Your task to perform on an android device: turn off priority inbox in the gmail app Image 0: 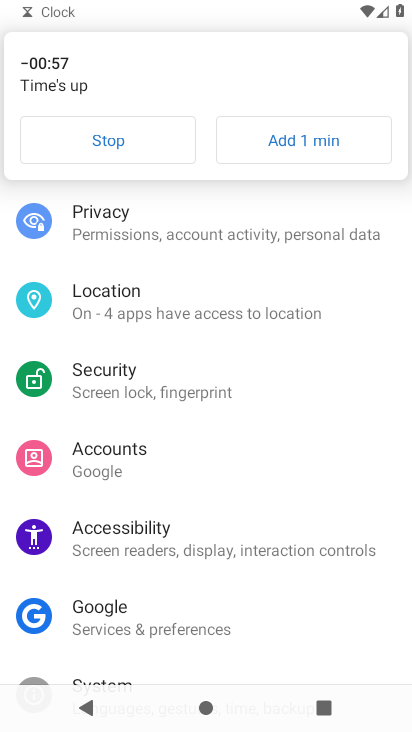
Step 0: press home button
Your task to perform on an android device: turn off priority inbox in the gmail app Image 1: 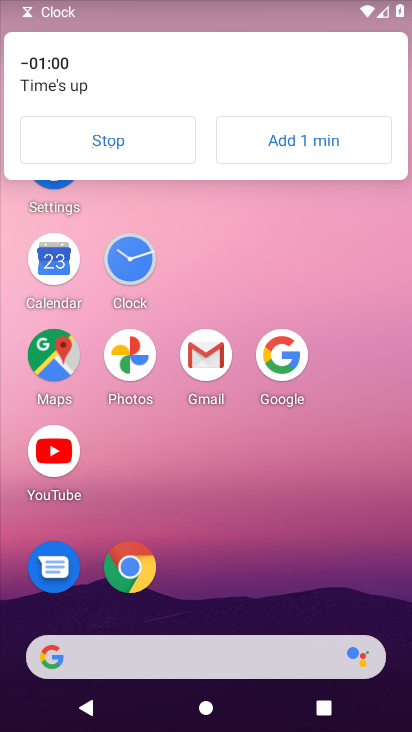
Step 1: click (87, 141)
Your task to perform on an android device: turn off priority inbox in the gmail app Image 2: 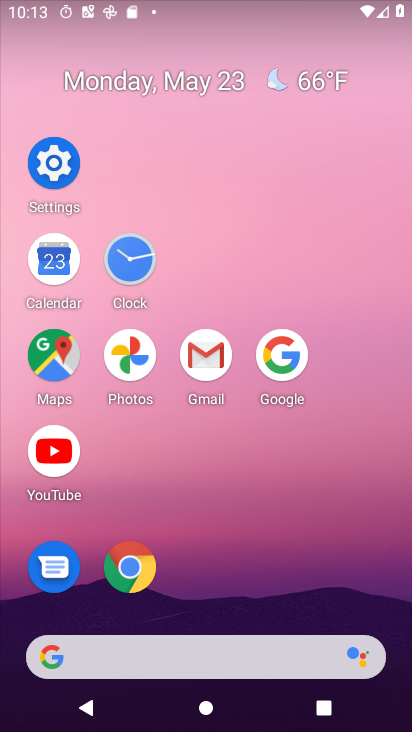
Step 2: click (214, 348)
Your task to perform on an android device: turn off priority inbox in the gmail app Image 3: 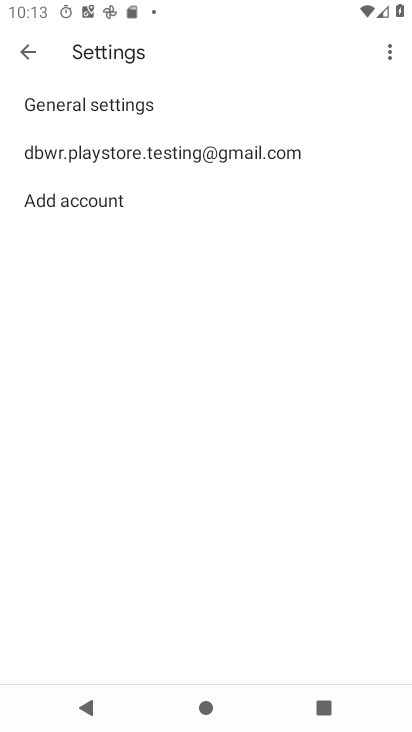
Step 3: click (182, 139)
Your task to perform on an android device: turn off priority inbox in the gmail app Image 4: 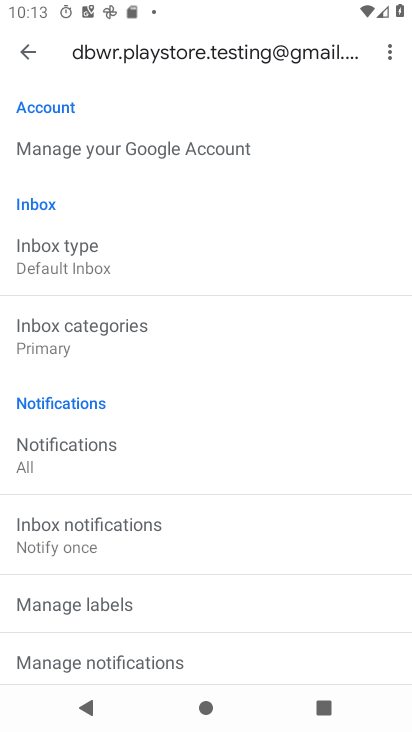
Step 4: drag from (256, 245) to (249, 393)
Your task to perform on an android device: turn off priority inbox in the gmail app Image 5: 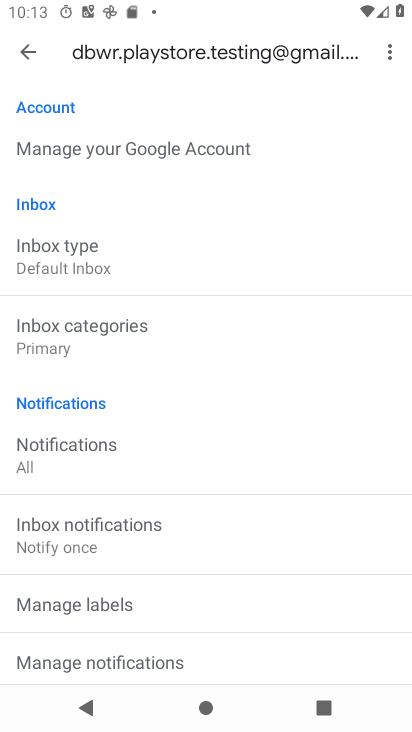
Step 5: click (99, 249)
Your task to perform on an android device: turn off priority inbox in the gmail app Image 6: 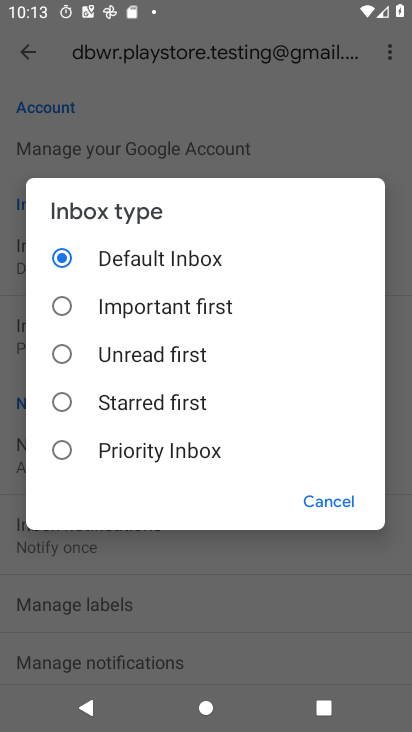
Step 6: task complete